Your task to perform on an android device: toggle location history Image 0: 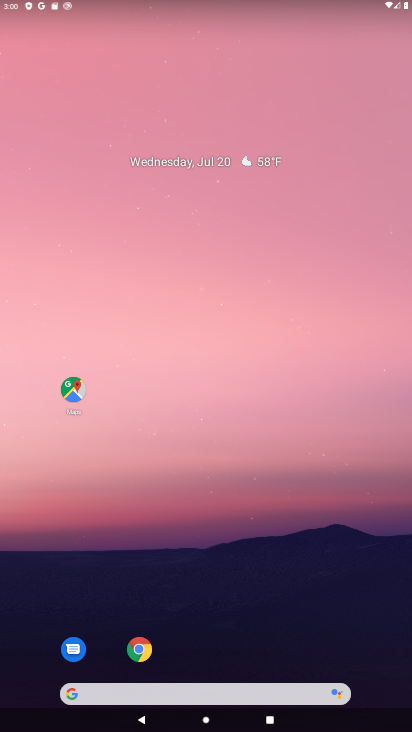
Step 0: drag from (226, 622) to (226, 196)
Your task to perform on an android device: toggle location history Image 1: 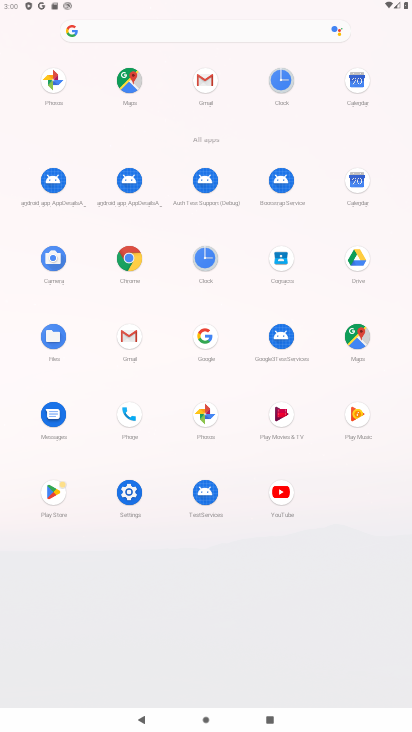
Step 1: click (124, 489)
Your task to perform on an android device: toggle location history Image 2: 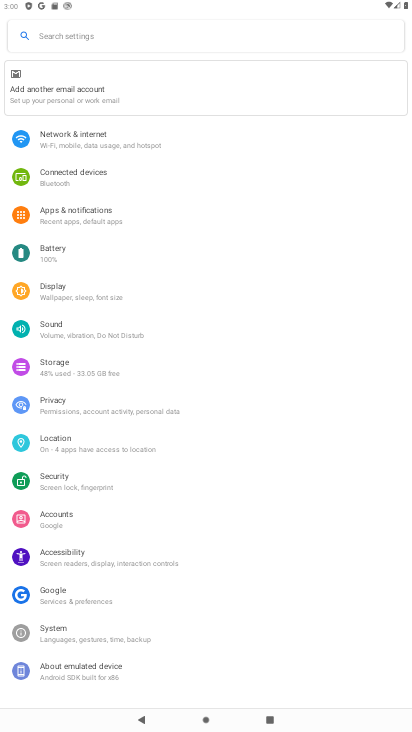
Step 2: click (59, 436)
Your task to perform on an android device: toggle location history Image 3: 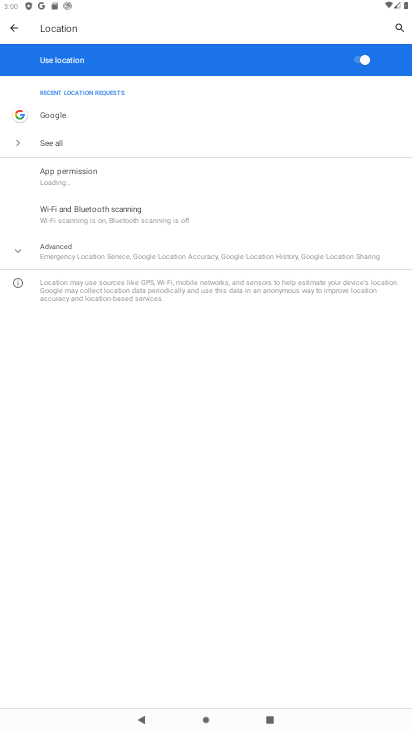
Step 3: click (64, 251)
Your task to perform on an android device: toggle location history Image 4: 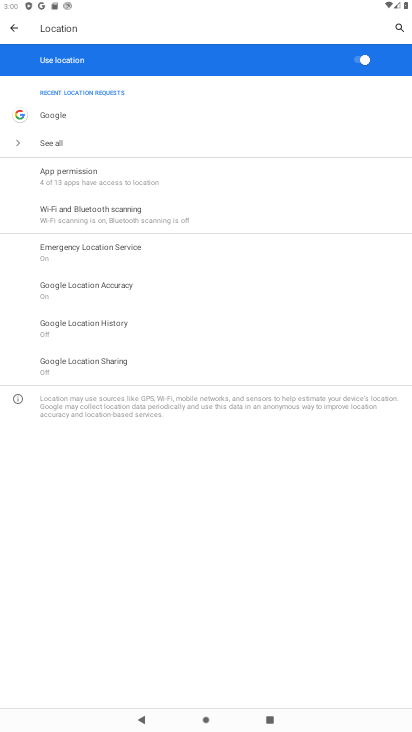
Step 4: click (76, 321)
Your task to perform on an android device: toggle location history Image 5: 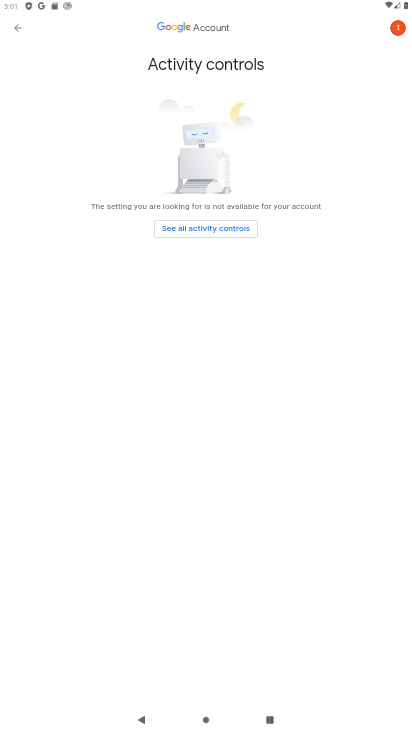
Step 5: press home button
Your task to perform on an android device: toggle location history Image 6: 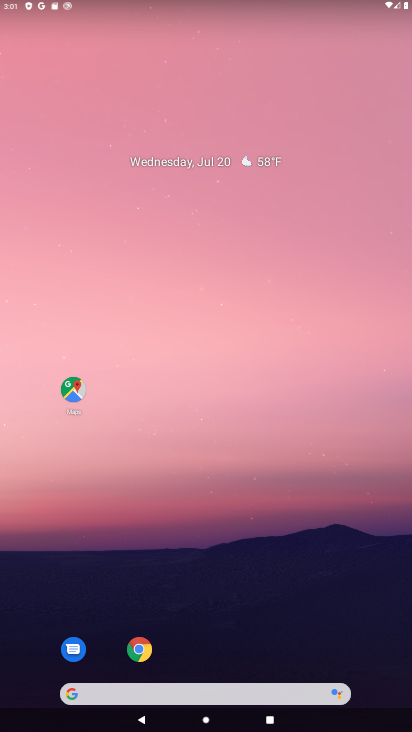
Step 6: drag from (174, 720) to (167, 139)
Your task to perform on an android device: toggle location history Image 7: 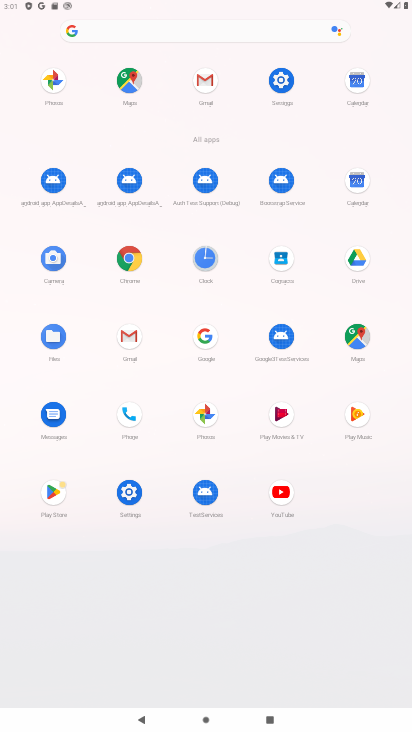
Step 7: click (283, 72)
Your task to perform on an android device: toggle location history Image 8: 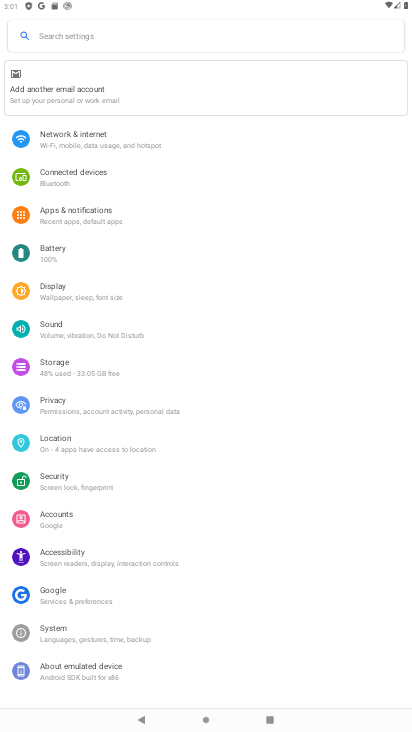
Step 8: click (56, 441)
Your task to perform on an android device: toggle location history Image 9: 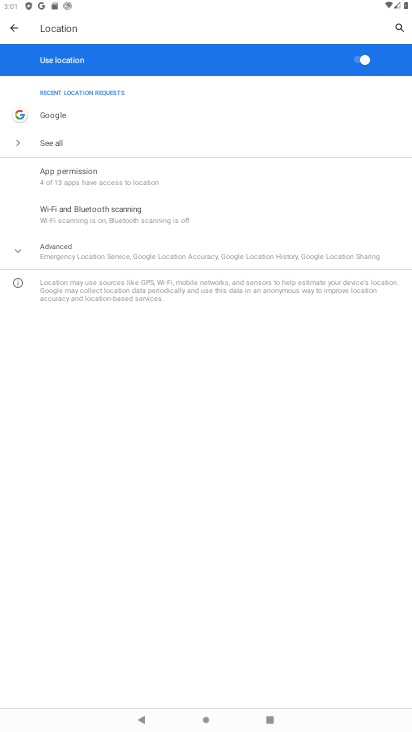
Step 9: click (55, 248)
Your task to perform on an android device: toggle location history Image 10: 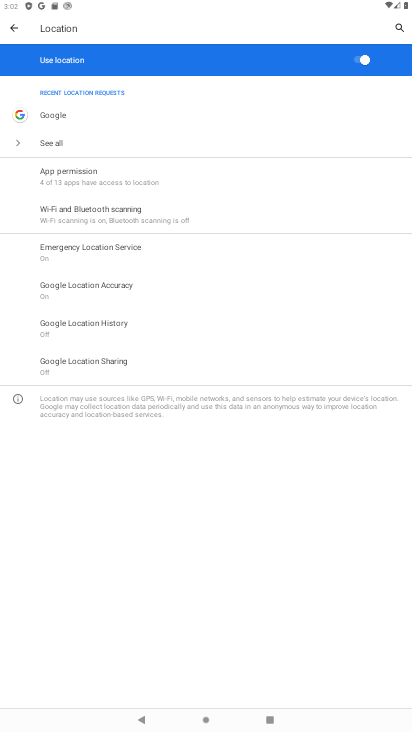
Step 10: click (79, 324)
Your task to perform on an android device: toggle location history Image 11: 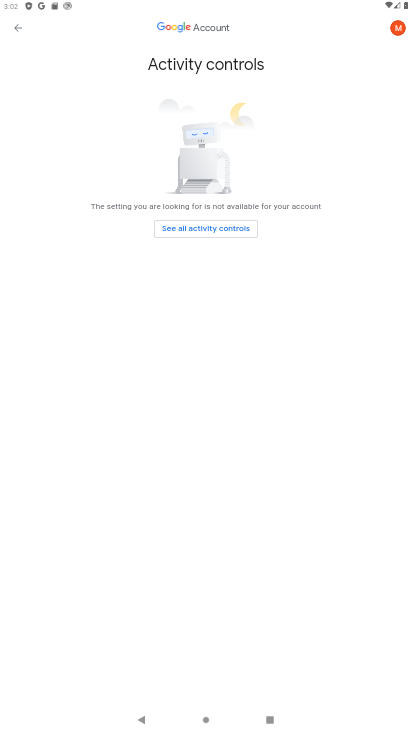
Step 11: click (215, 223)
Your task to perform on an android device: toggle location history Image 12: 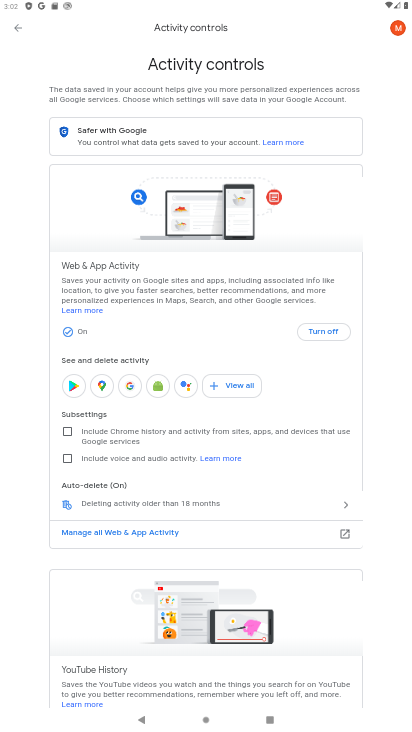
Step 12: click (317, 328)
Your task to perform on an android device: toggle location history Image 13: 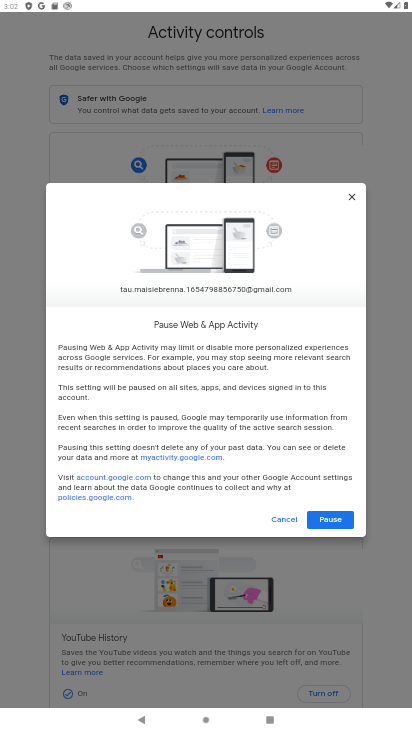
Step 13: click (331, 520)
Your task to perform on an android device: toggle location history Image 14: 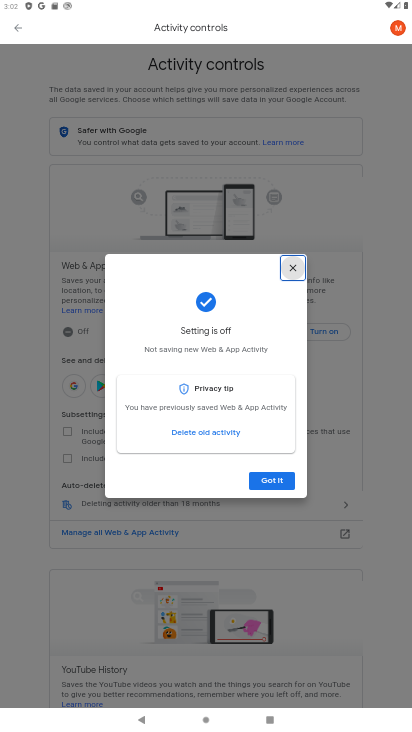
Step 14: click (269, 479)
Your task to perform on an android device: toggle location history Image 15: 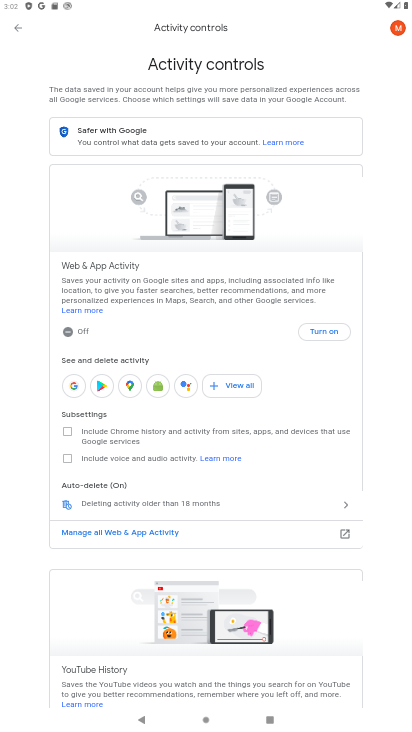
Step 15: task complete